Your task to perform on an android device: Open Youtube and go to the subscriptions tab Image 0: 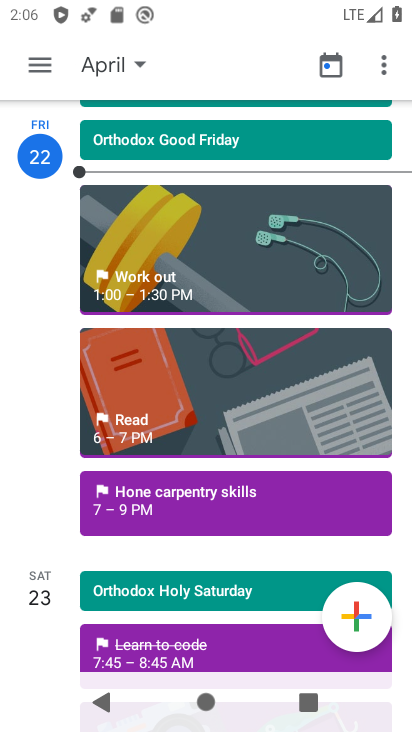
Step 0: press home button
Your task to perform on an android device: Open Youtube and go to the subscriptions tab Image 1: 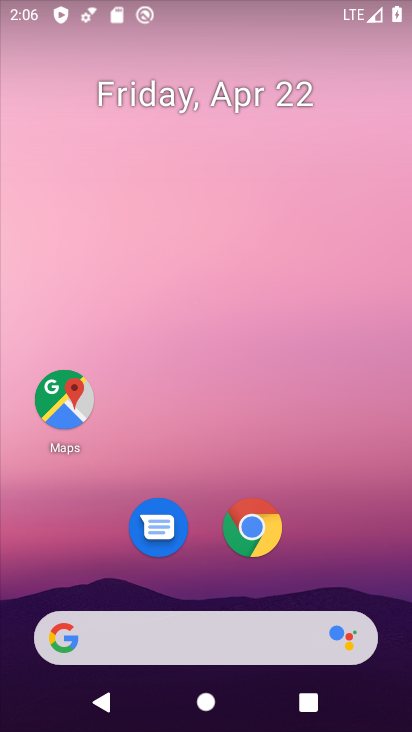
Step 1: drag from (306, 561) to (304, 80)
Your task to perform on an android device: Open Youtube and go to the subscriptions tab Image 2: 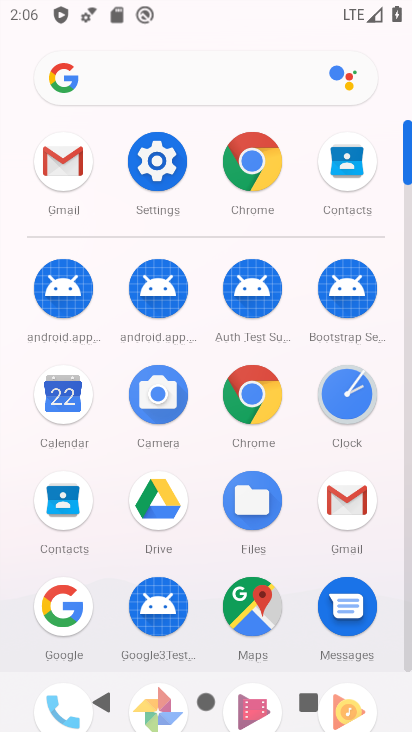
Step 2: drag from (298, 561) to (298, 201)
Your task to perform on an android device: Open Youtube and go to the subscriptions tab Image 3: 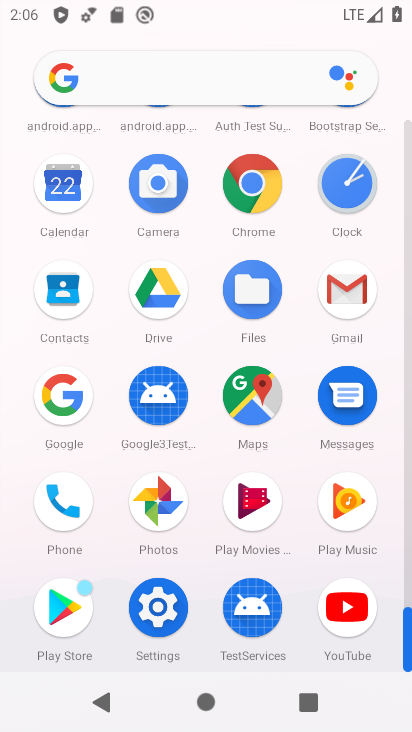
Step 3: click (356, 622)
Your task to perform on an android device: Open Youtube and go to the subscriptions tab Image 4: 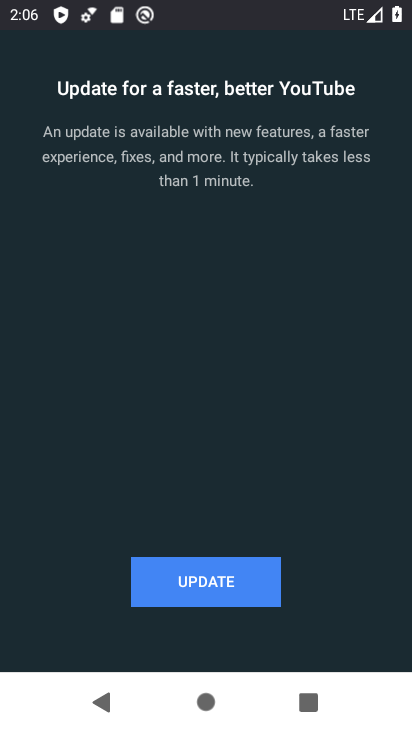
Step 4: click (212, 588)
Your task to perform on an android device: Open Youtube and go to the subscriptions tab Image 5: 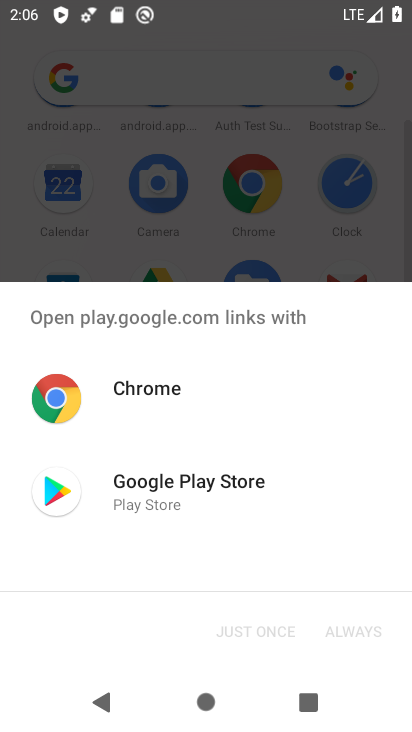
Step 5: click (187, 483)
Your task to perform on an android device: Open Youtube and go to the subscriptions tab Image 6: 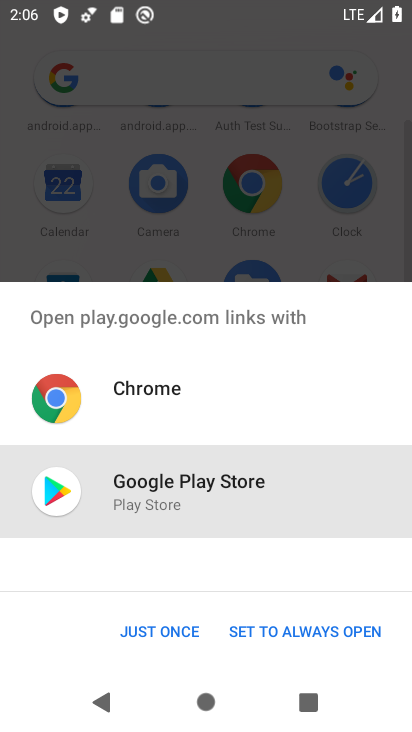
Step 6: click (139, 628)
Your task to perform on an android device: Open Youtube and go to the subscriptions tab Image 7: 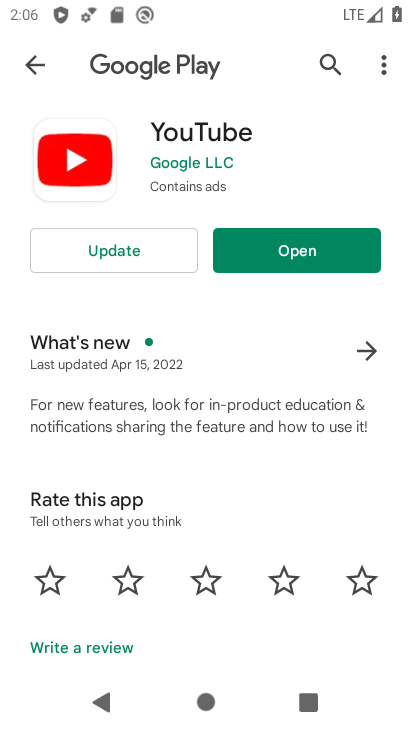
Step 7: click (148, 256)
Your task to perform on an android device: Open Youtube and go to the subscriptions tab Image 8: 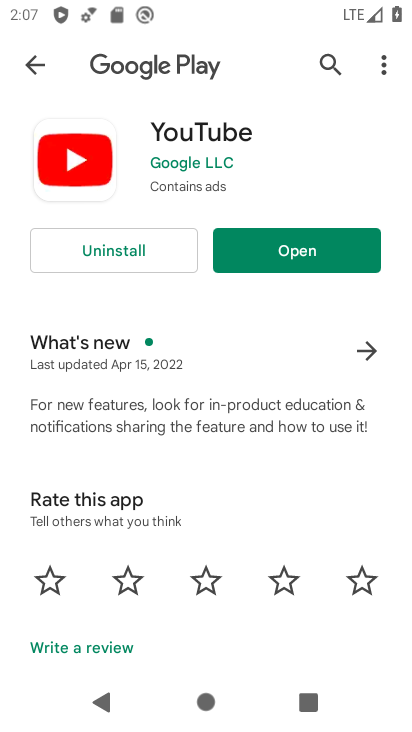
Step 8: click (265, 259)
Your task to perform on an android device: Open Youtube and go to the subscriptions tab Image 9: 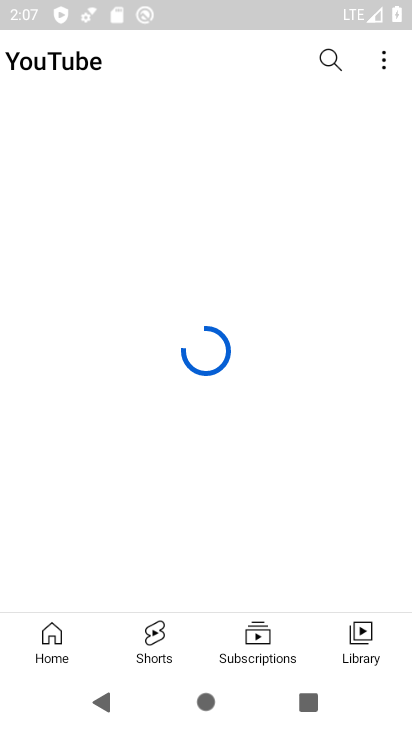
Step 9: click (253, 635)
Your task to perform on an android device: Open Youtube and go to the subscriptions tab Image 10: 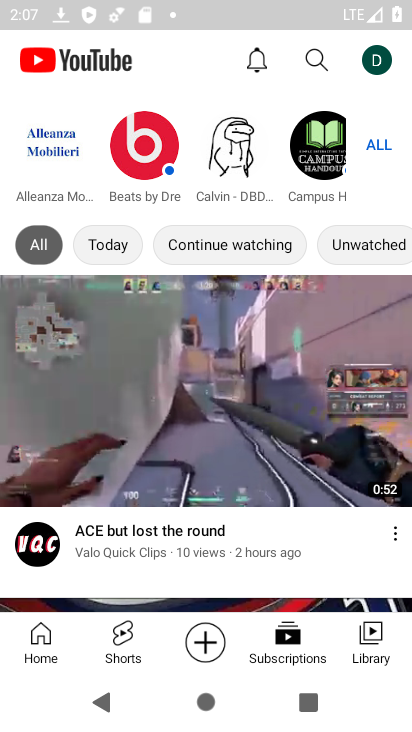
Step 10: task complete